Your task to perform on an android device: toggle show notifications on the lock screen Image 0: 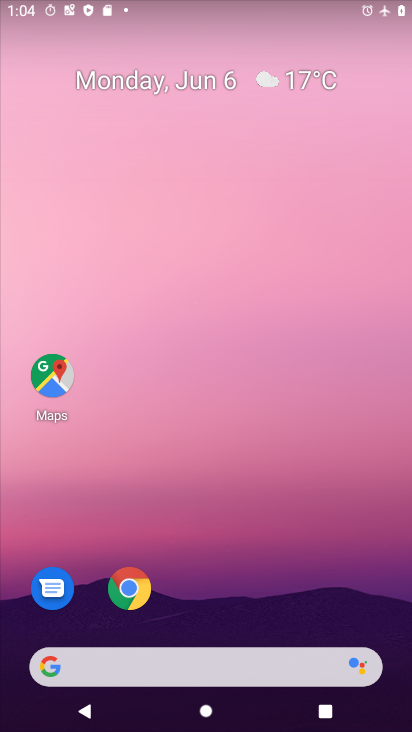
Step 0: drag from (274, 522) to (306, 145)
Your task to perform on an android device: toggle show notifications on the lock screen Image 1: 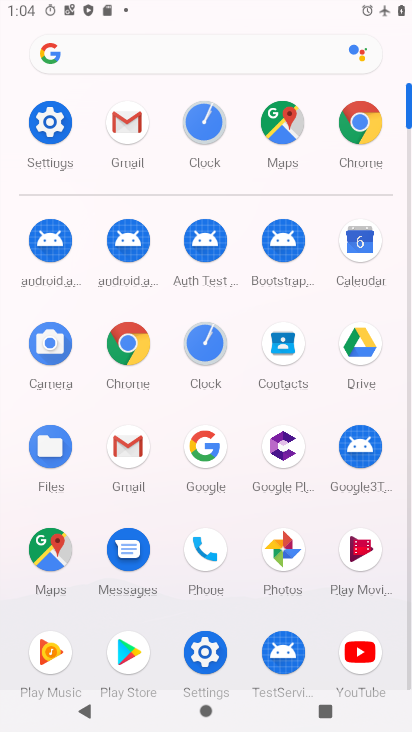
Step 1: click (44, 124)
Your task to perform on an android device: toggle show notifications on the lock screen Image 2: 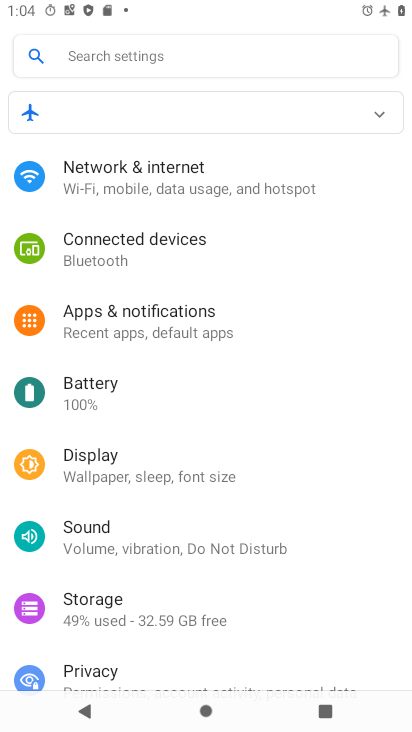
Step 2: click (165, 346)
Your task to perform on an android device: toggle show notifications on the lock screen Image 3: 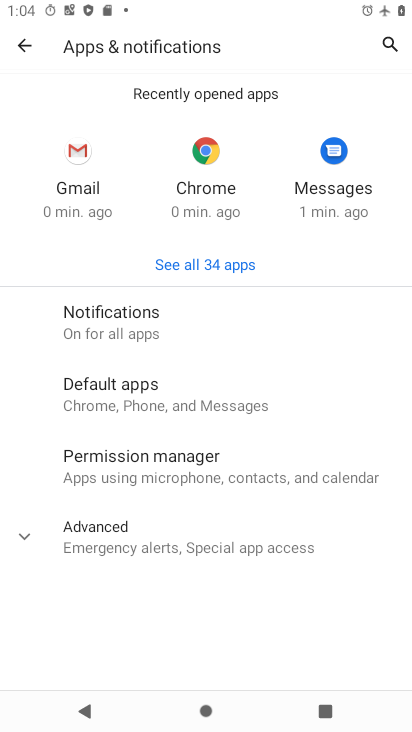
Step 3: click (116, 508)
Your task to perform on an android device: toggle show notifications on the lock screen Image 4: 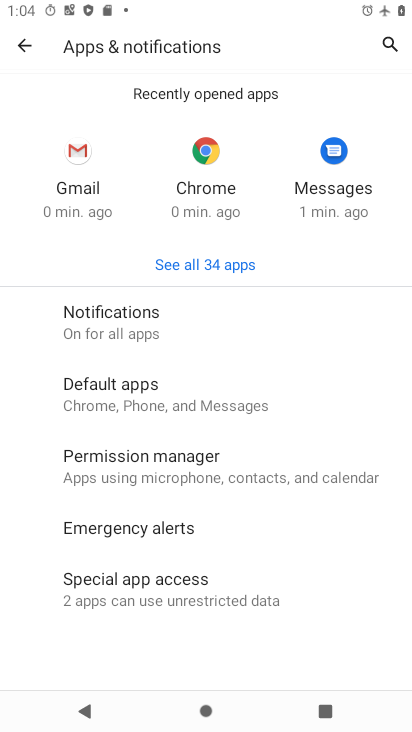
Step 4: click (198, 297)
Your task to perform on an android device: toggle show notifications on the lock screen Image 5: 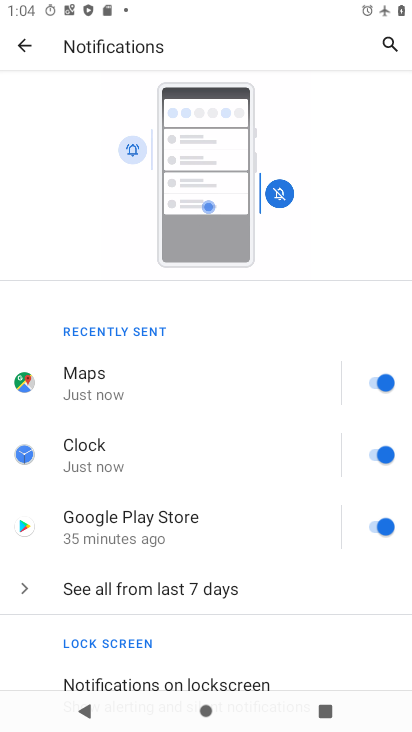
Step 5: drag from (239, 587) to (305, 149)
Your task to perform on an android device: toggle show notifications on the lock screen Image 6: 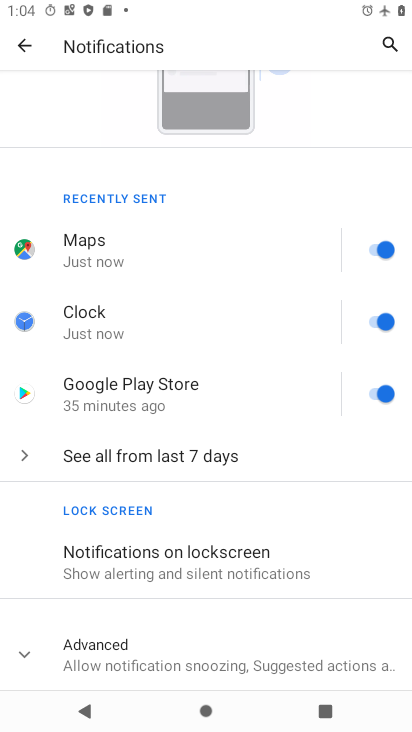
Step 6: click (199, 554)
Your task to perform on an android device: toggle show notifications on the lock screen Image 7: 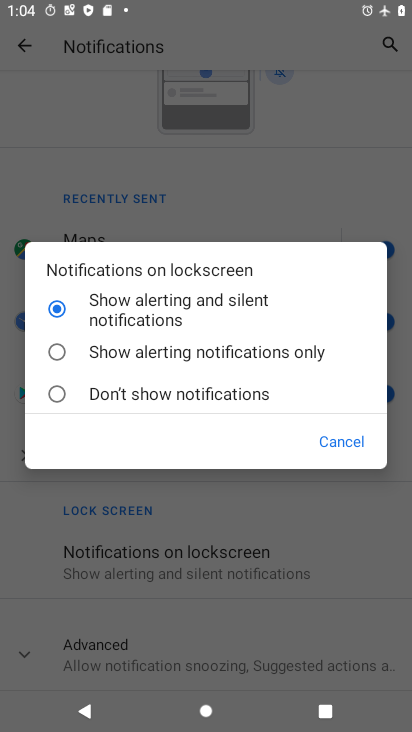
Step 7: click (253, 344)
Your task to perform on an android device: toggle show notifications on the lock screen Image 8: 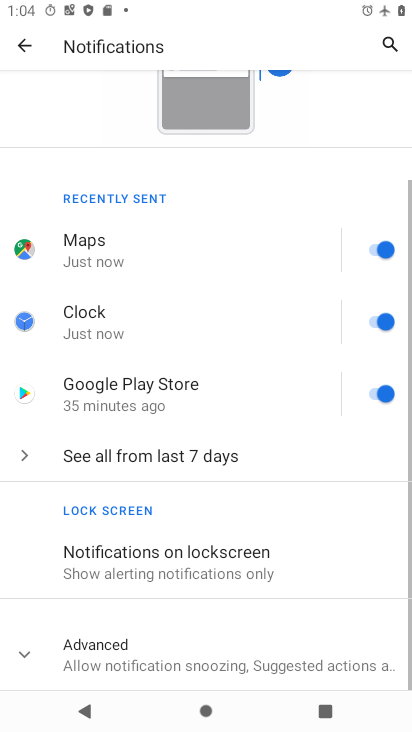
Step 8: task complete